Your task to perform on an android device: Do I have any events tomorrow? Image 0: 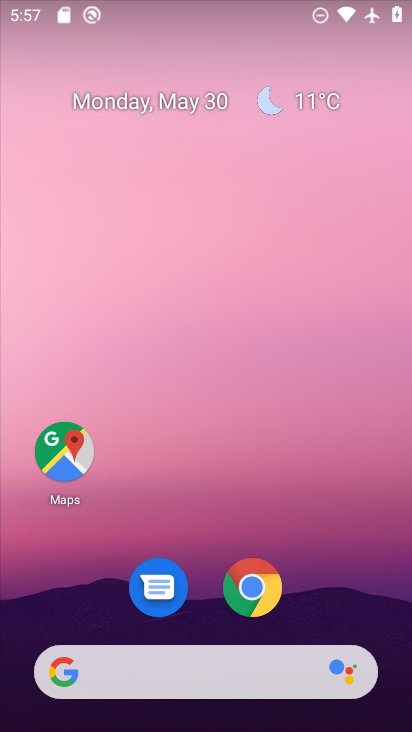
Step 0: drag from (333, 517) to (241, 65)
Your task to perform on an android device: Do I have any events tomorrow? Image 1: 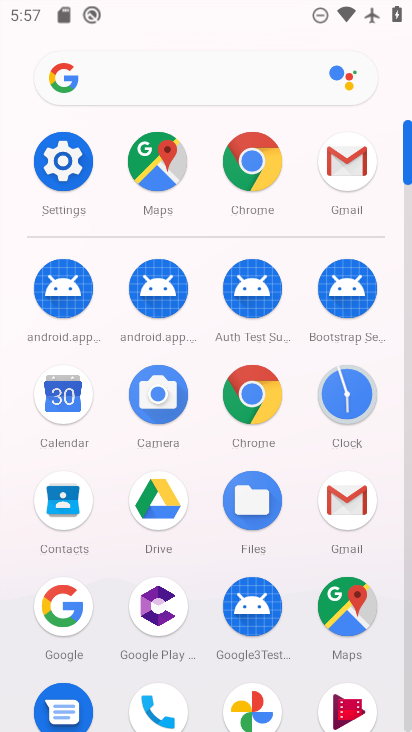
Step 1: drag from (2, 541) to (13, 222)
Your task to perform on an android device: Do I have any events tomorrow? Image 2: 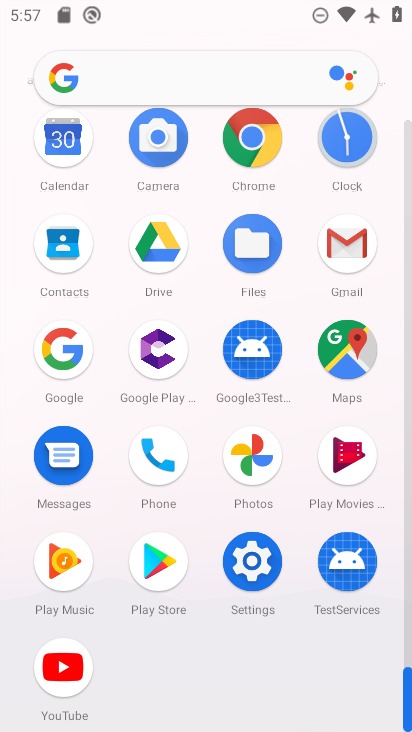
Step 2: click (66, 131)
Your task to perform on an android device: Do I have any events tomorrow? Image 3: 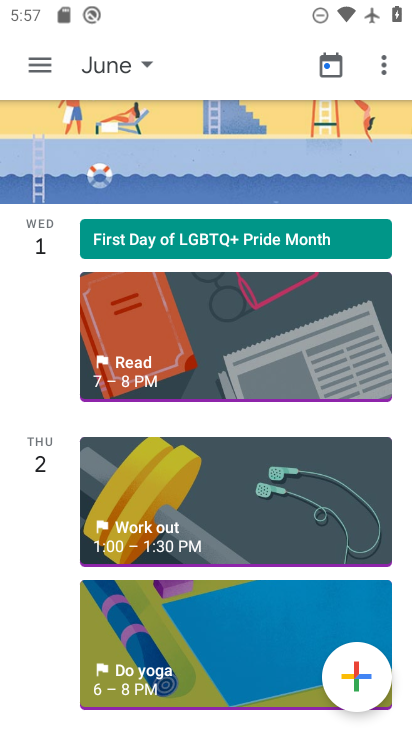
Step 3: click (46, 65)
Your task to perform on an android device: Do I have any events tomorrow? Image 4: 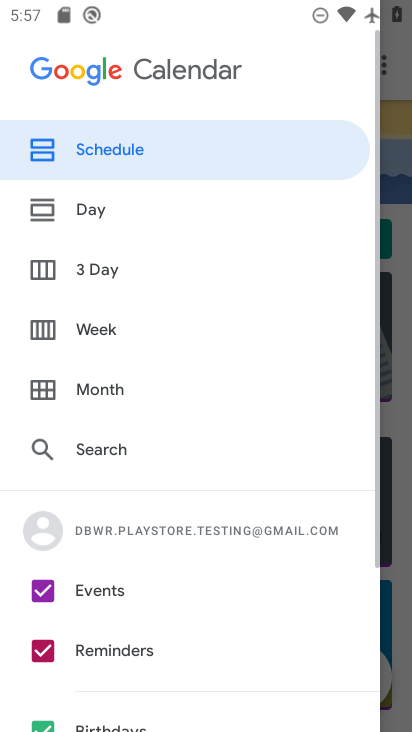
Step 4: click (153, 145)
Your task to perform on an android device: Do I have any events tomorrow? Image 5: 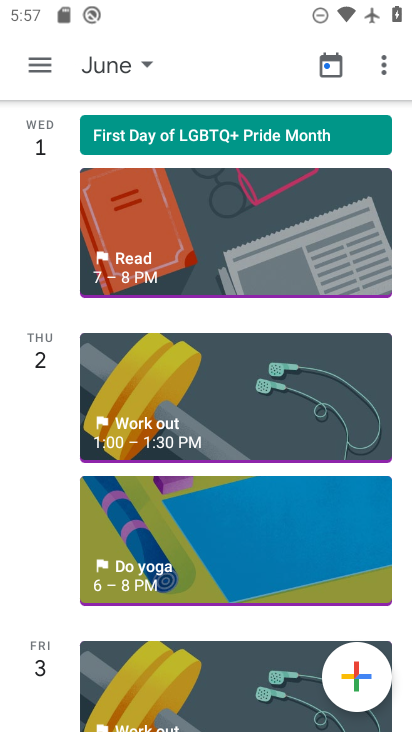
Step 5: click (28, 65)
Your task to perform on an android device: Do I have any events tomorrow? Image 6: 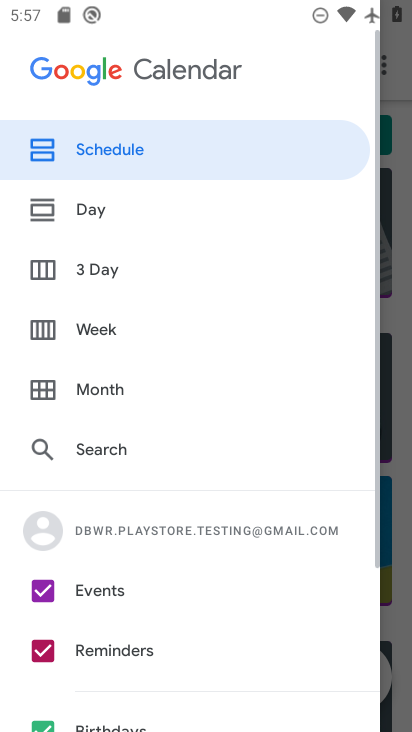
Step 6: click (91, 198)
Your task to perform on an android device: Do I have any events tomorrow? Image 7: 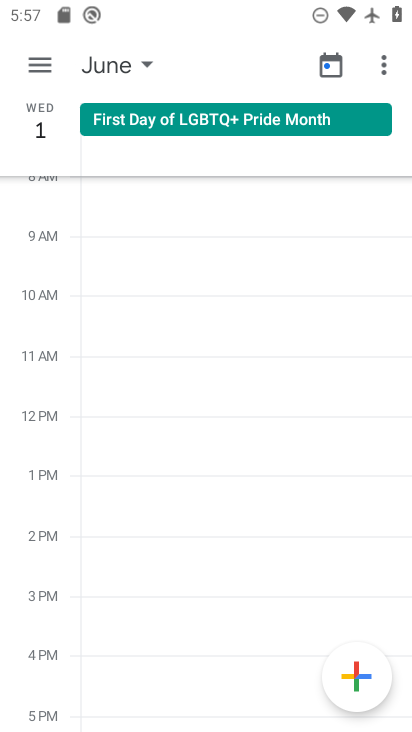
Step 7: drag from (389, 141) to (15, 136)
Your task to perform on an android device: Do I have any events tomorrow? Image 8: 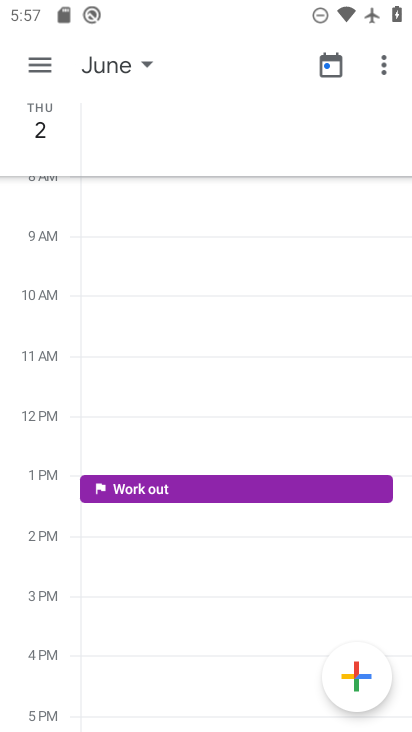
Step 8: click (331, 60)
Your task to perform on an android device: Do I have any events tomorrow? Image 9: 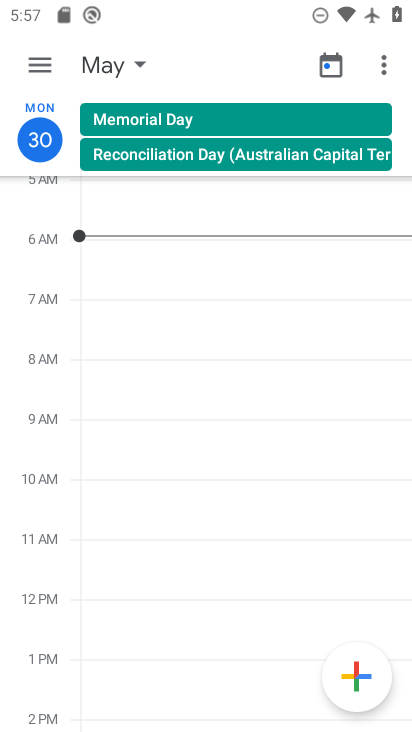
Step 9: task complete